Your task to perform on an android device: Go to Google Image 0: 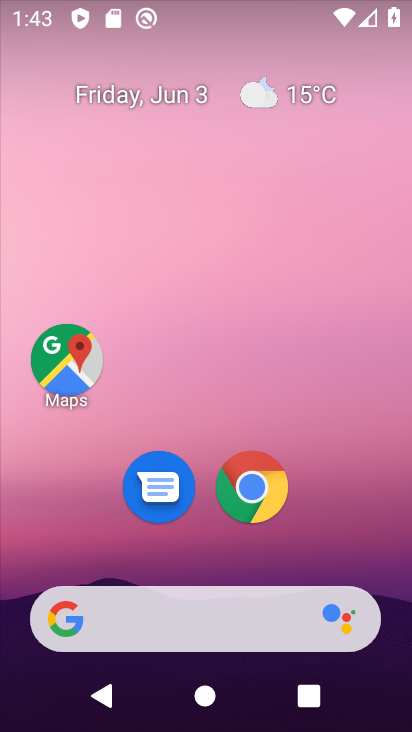
Step 0: click (183, 36)
Your task to perform on an android device: Go to Google Image 1: 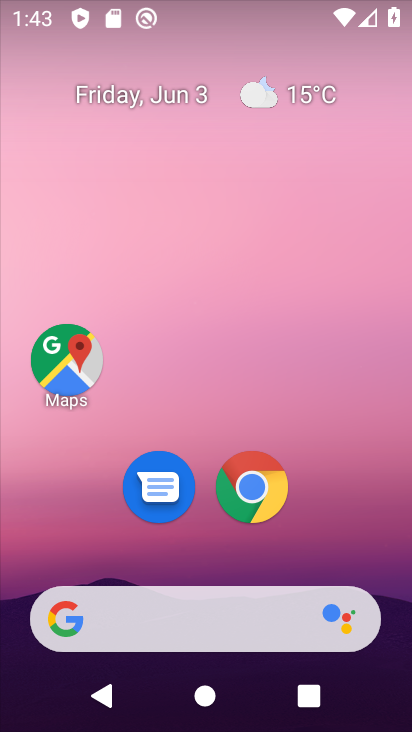
Step 1: drag from (266, 366) to (267, 0)
Your task to perform on an android device: Go to Google Image 2: 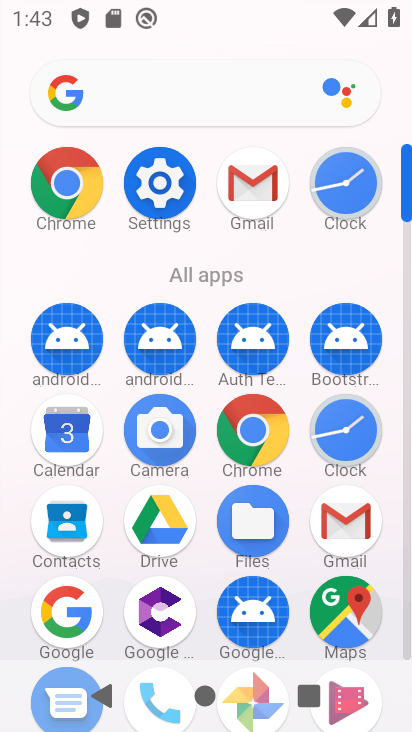
Step 2: click (72, 612)
Your task to perform on an android device: Go to Google Image 3: 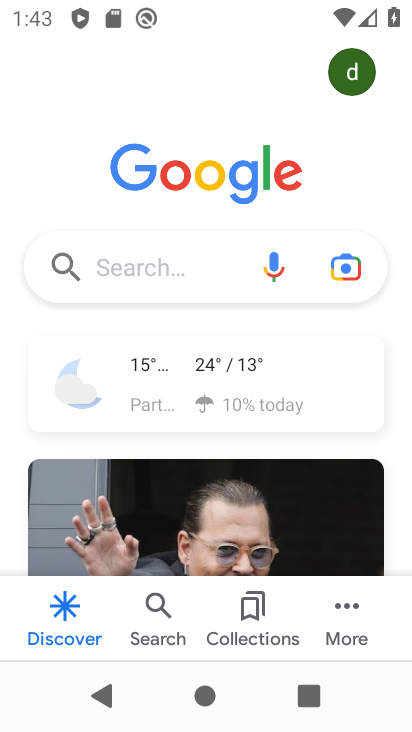
Step 3: task complete